Your task to perform on an android device: delete browsing data in the chrome app Image 0: 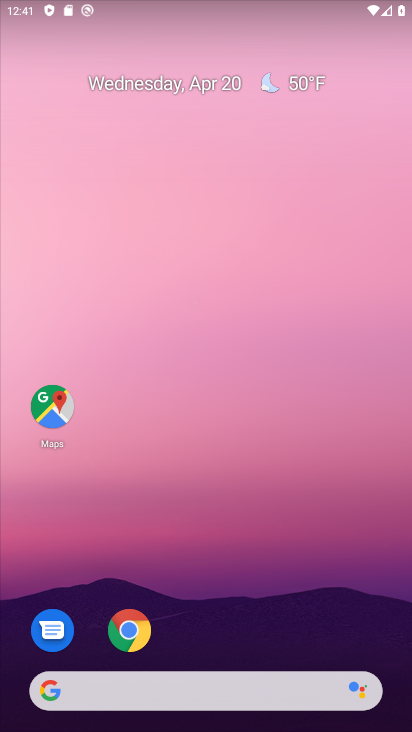
Step 0: click (210, 200)
Your task to perform on an android device: delete browsing data in the chrome app Image 1: 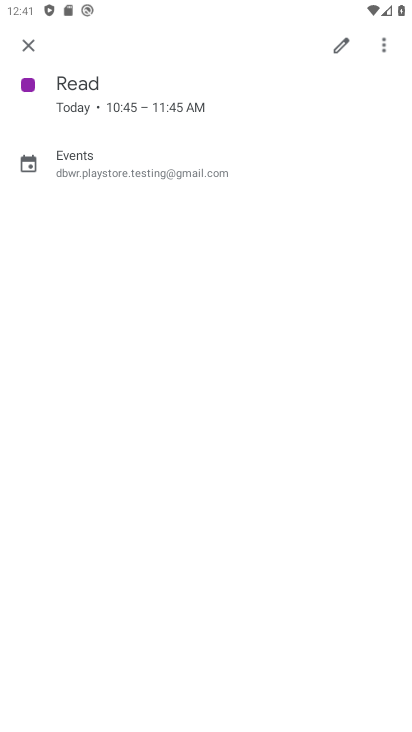
Step 1: press home button
Your task to perform on an android device: delete browsing data in the chrome app Image 2: 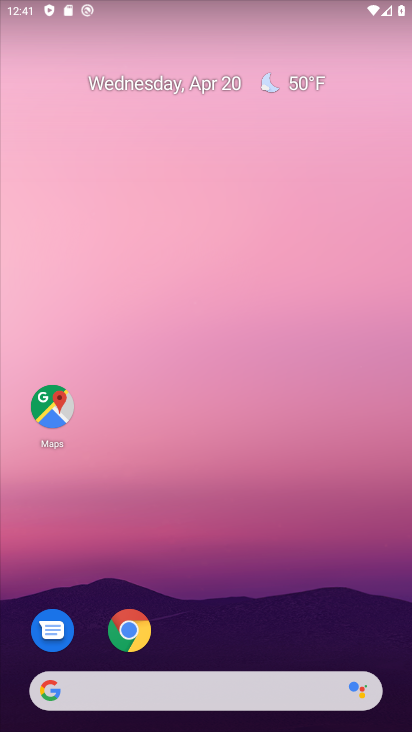
Step 2: click (134, 628)
Your task to perform on an android device: delete browsing data in the chrome app Image 3: 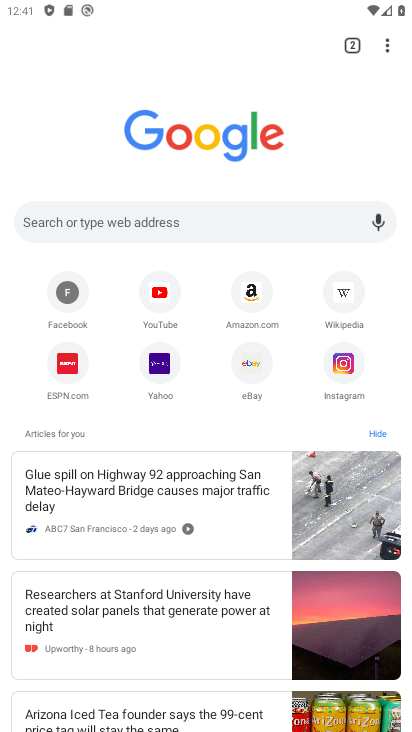
Step 3: click (380, 49)
Your task to perform on an android device: delete browsing data in the chrome app Image 4: 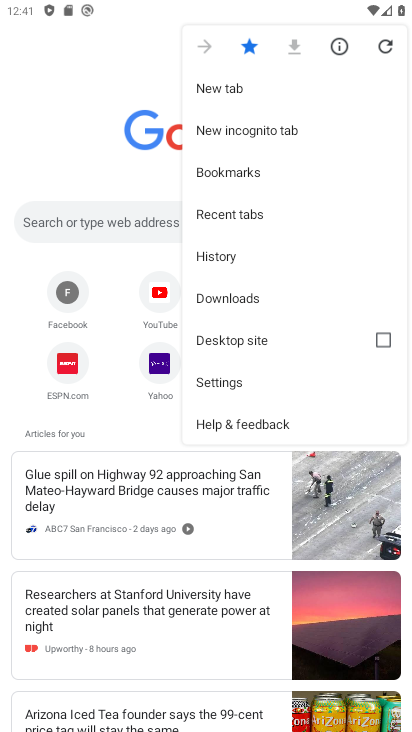
Step 4: click (219, 378)
Your task to perform on an android device: delete browsing data in the chrome app Image 5: 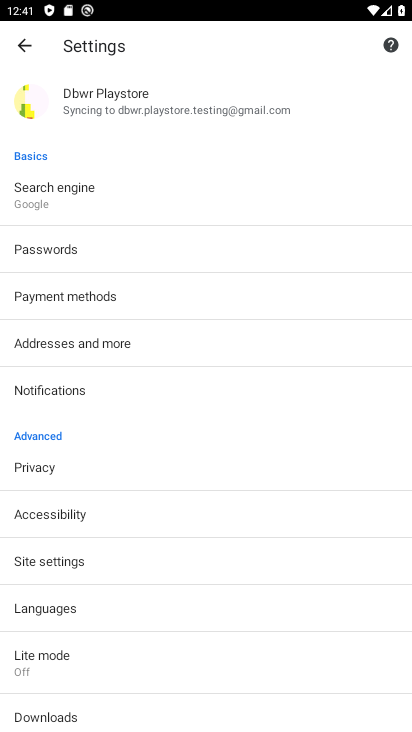
Step 5: click (80, 466)
Your task to perform on an android device: delete browsing data in the chrome app Image 6: 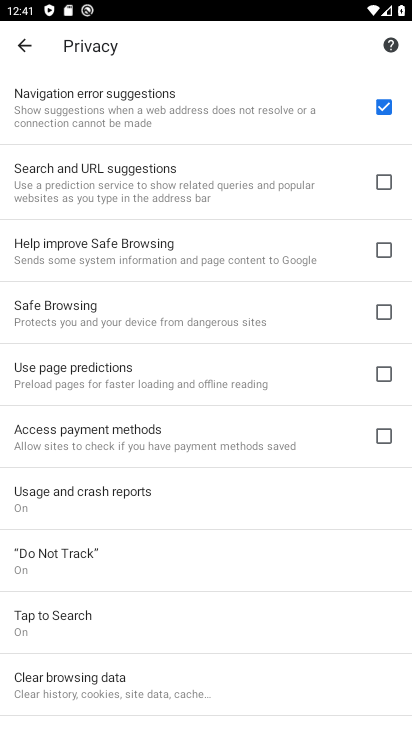
Step 6: click (170, 676)
Your task to perform on an android device: delete browsing data in the chrome app Image 7: 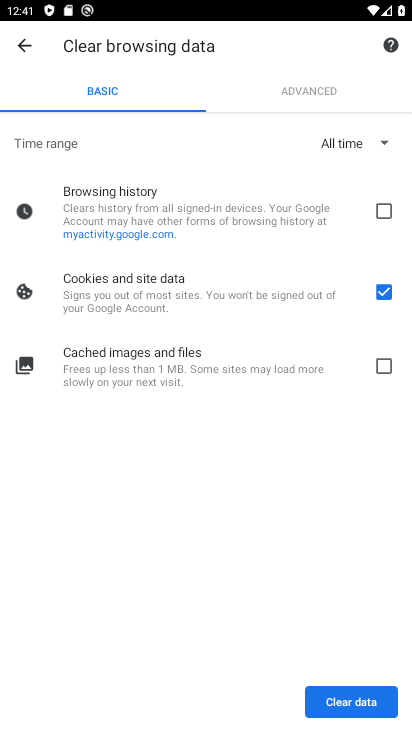
Step 7: click (388, 205)
Your task to perform on an android device: delete browsing data in the chrome app Image 8: 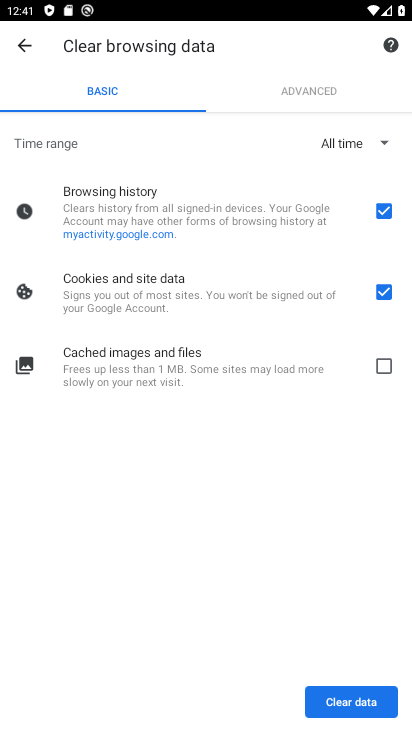
Step 8: click (383, 292)
Your task to perform on an android device: delete browsing data in the chrome app Image 9: 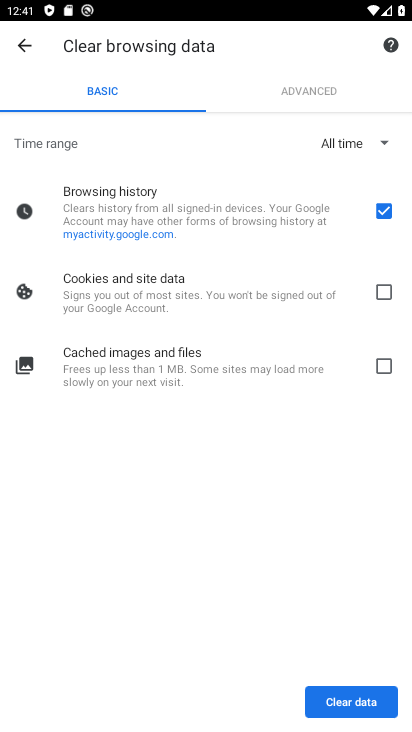
Step 9: click (354, 694)
Your task to perform on an android device: delete browsing data in the chrome app Image 10: 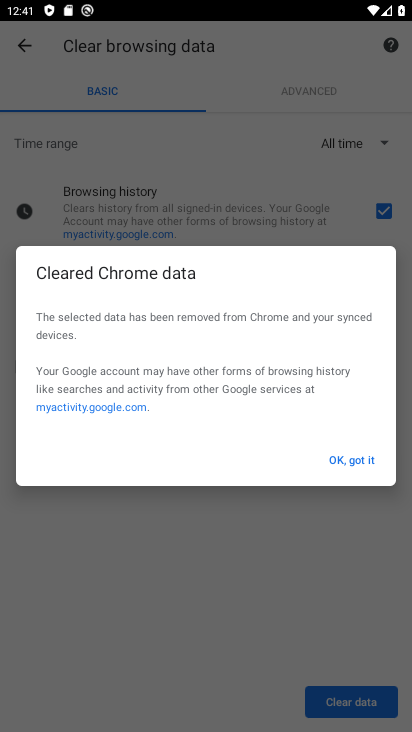
Step 10: click (343, 454)
Your task to perform on an android device: delete browsing data in the chrome app Image 11: 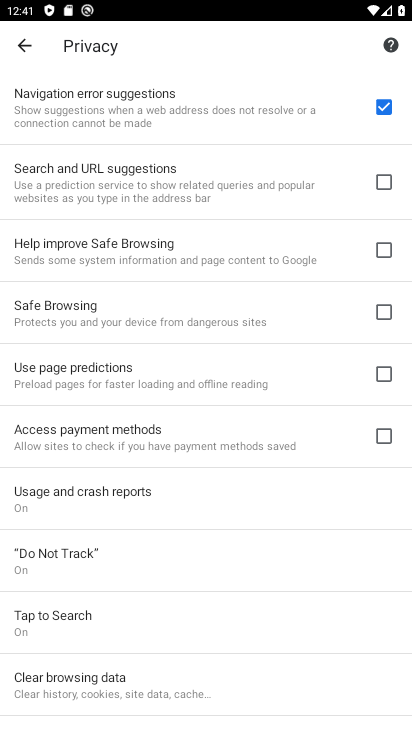
Step 11: task complete